Your task to perform on an android device: uninstall "VLC for Android" Image 0: 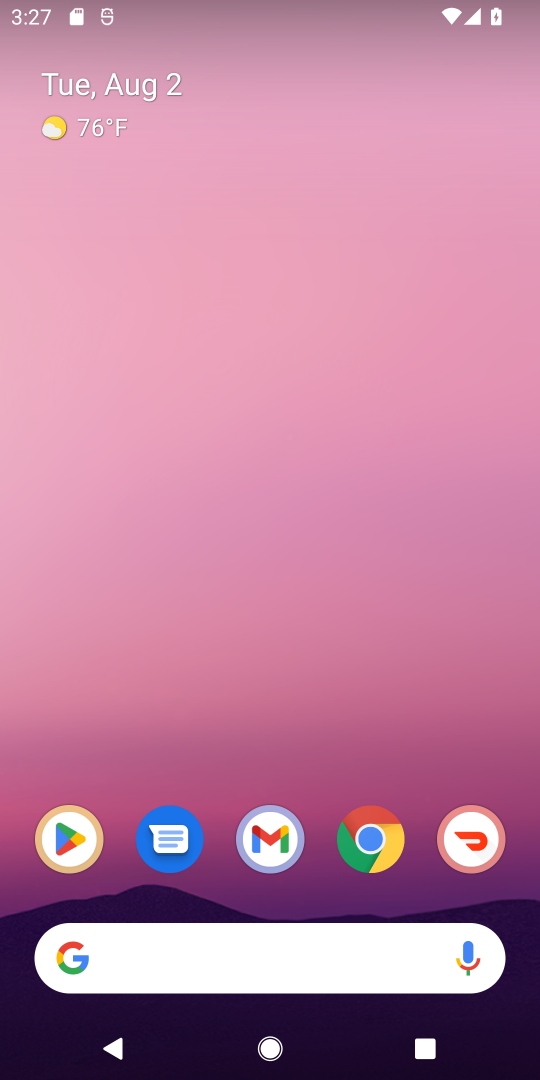
Step 0: click (86, 832)
Your task to perform on an android device: uninstall "VLC for Android" Image 1: 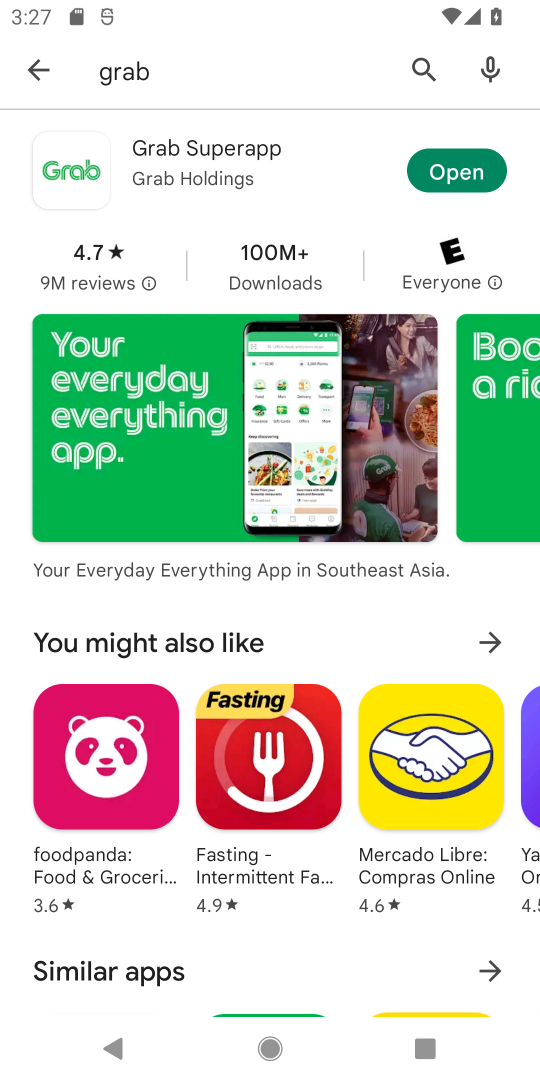
Step 1: click (409, 82)
Your task to perform on an android device: uninstall "VLC for Android" Image 2: 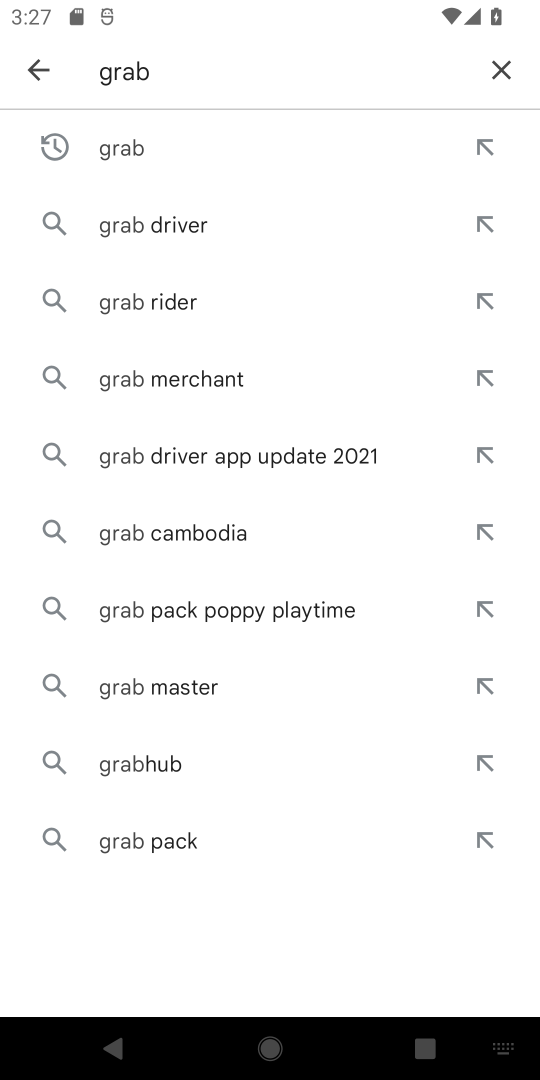
Step 2: click (491, 61)
Your task to perform on an android device: uninstall "VLC for Android" Image 3: 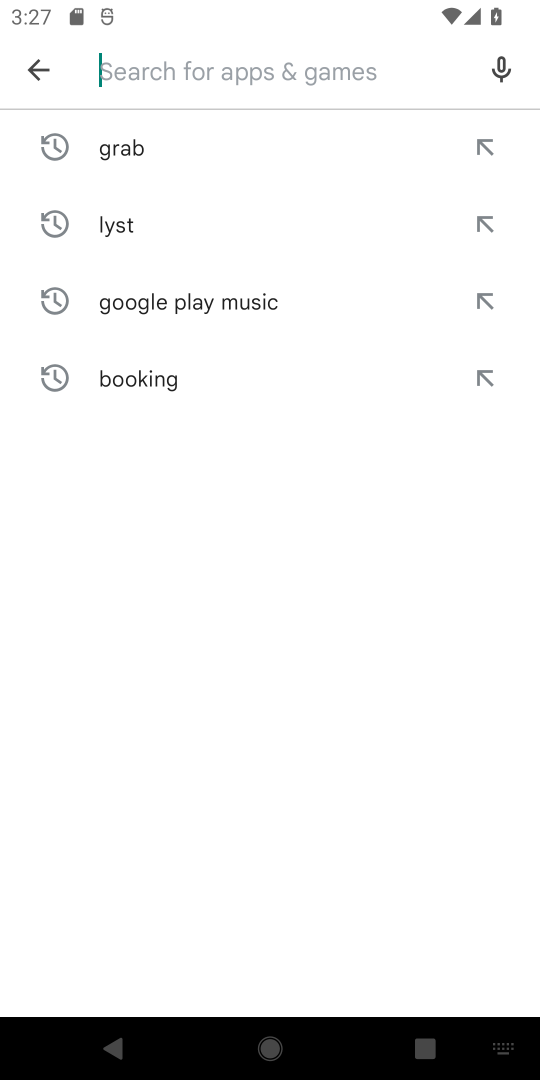
Step 3: type "vlc"
Your task to perform on an android device: uninstall "VLC for Android" Image 4: 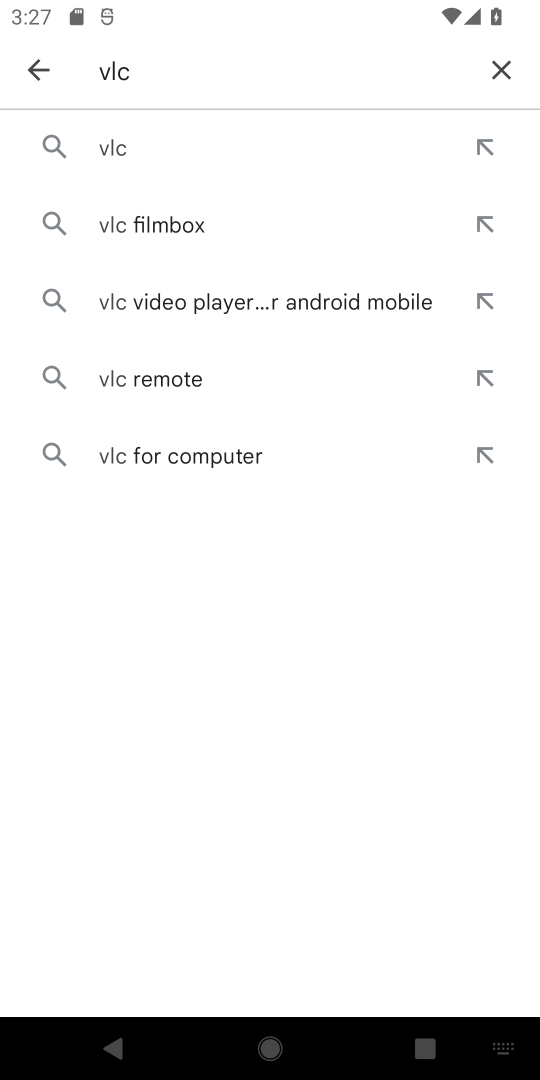
Step 4: click (292, 133)
Your task to perform on an android device: uninstall "VLC for Android" Image 5: 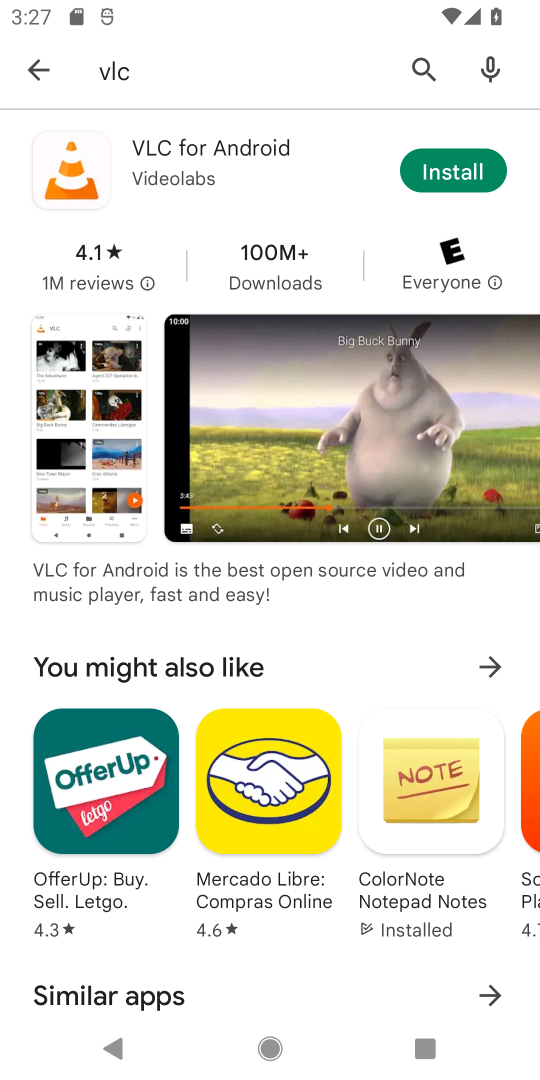
Step 5: click (468, 156)
Your task to perform on an android device: uninstall "VLC for Android" Image 6: 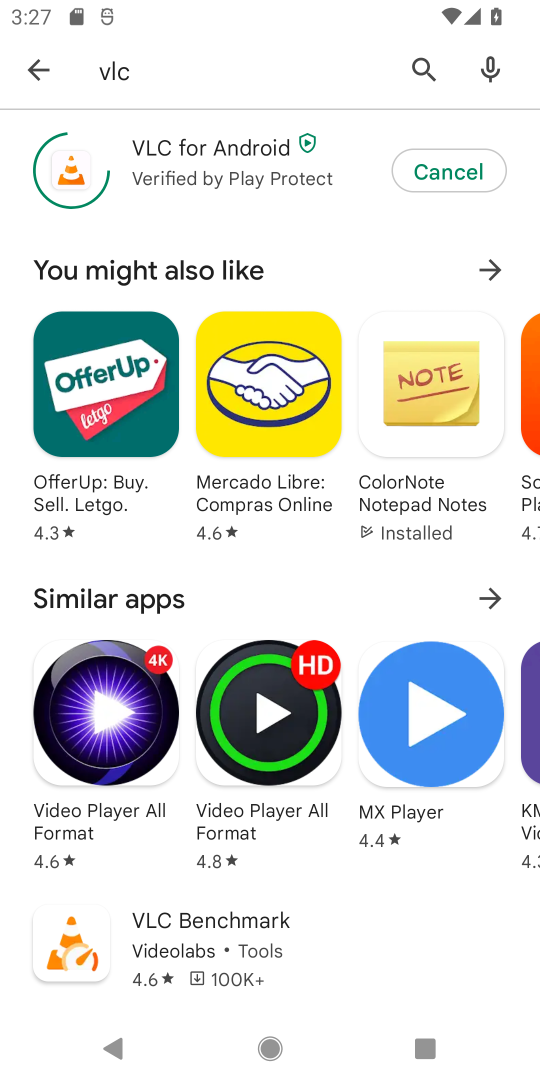
Step 6: task complete